Your task to perform on an android device: turn on airplane mode Image 0: 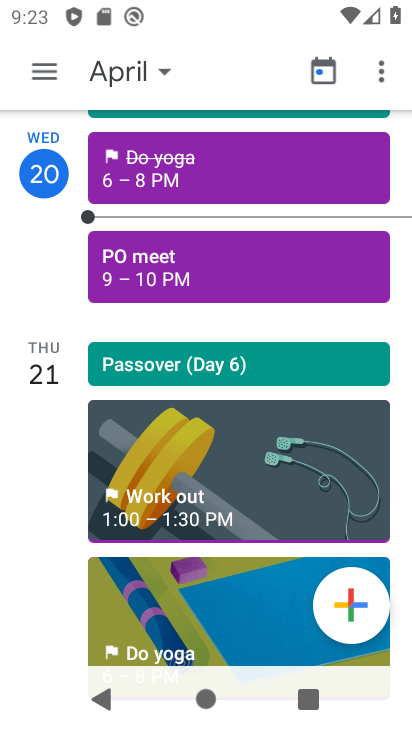
Step 0: press home button
Your task to perform on an android device: turn on airplane mode Image 1: 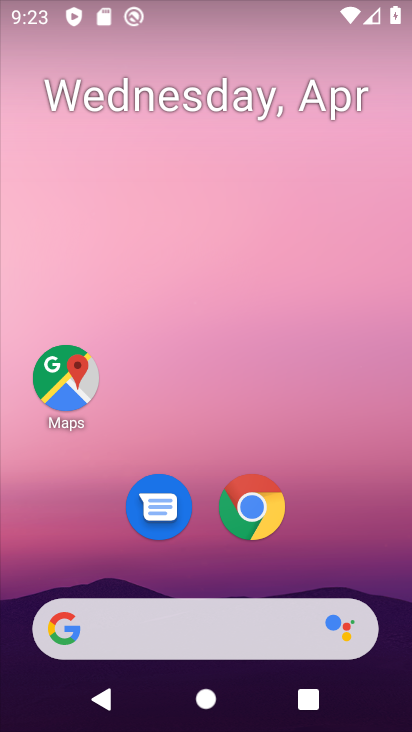
Step 1: drag from (326, 538) to (328, 101)
Your task to perform on an android device: turn on airplane mode Image 2: 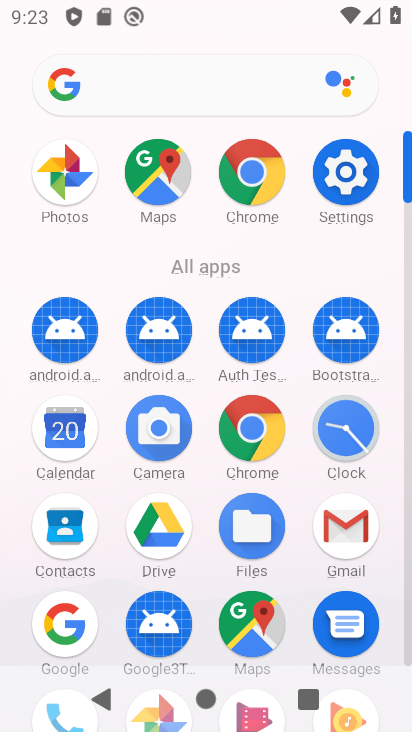
Step 2: click (354, 176)
Your task to perform on an android device: turn on airplane mode Image 3: 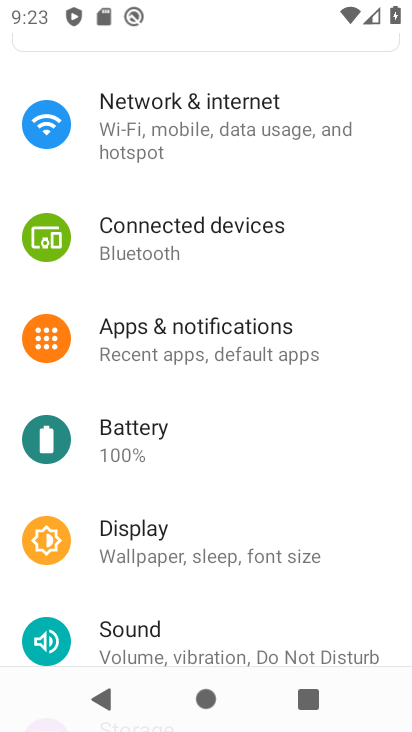
Step 3: click (287, 143)
Your task to perform on an android device: turn on airplane mode Image 4: 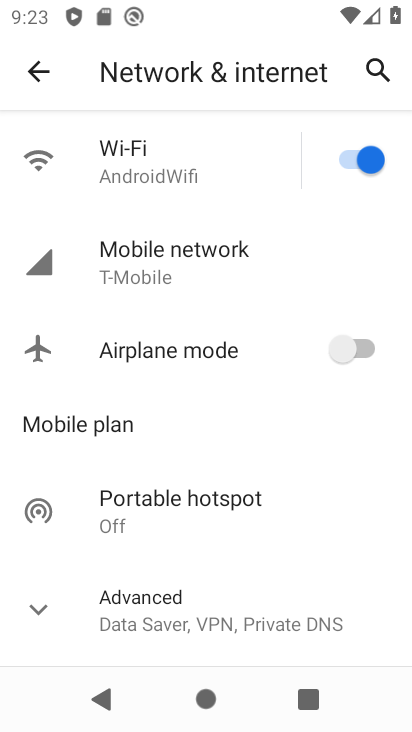
Step 4: click (367, 354)
Your task to perform on an android device: turn on airplane mode Image 5: 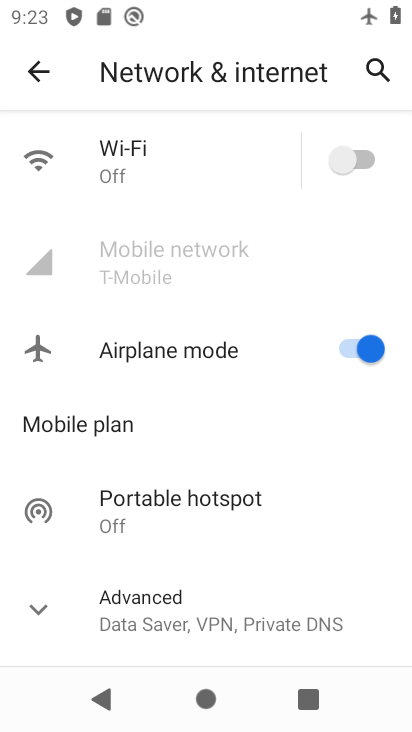
Step 5: task complete